Your task to perform on an android device: turn off picture-in-picture Image 0: 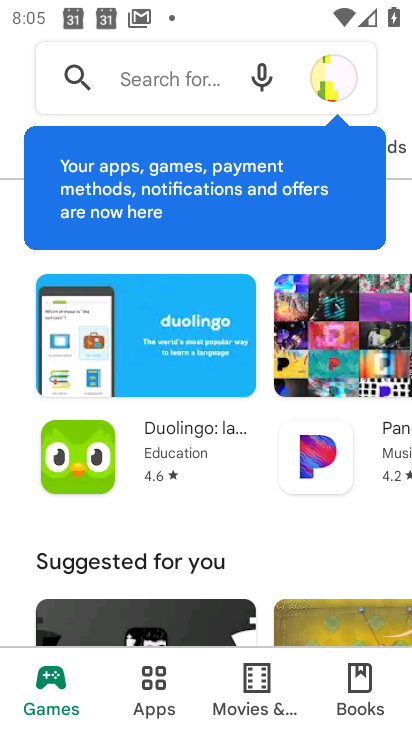
Step 0: press home button
Your task to perform on an android device: turn off picture-in-picture Image 1: 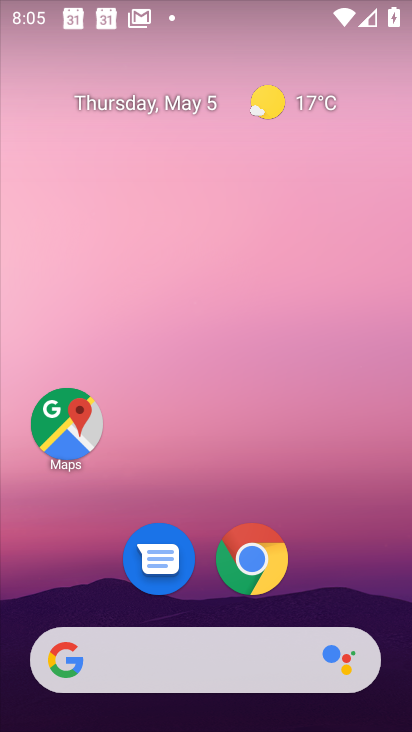
Step 1: click (249, 564)
Your task to perform on an android device: turn off picture-in-picture Image 2: 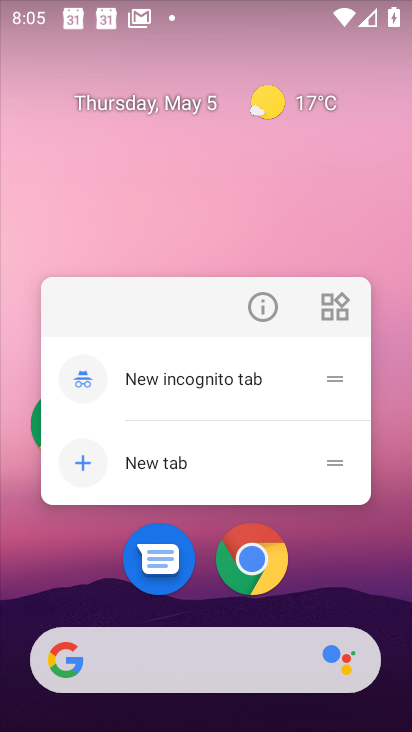
Step 2: click (272, 309)
Your task to perform on an android device: turn off picture-in-picture Image 3: 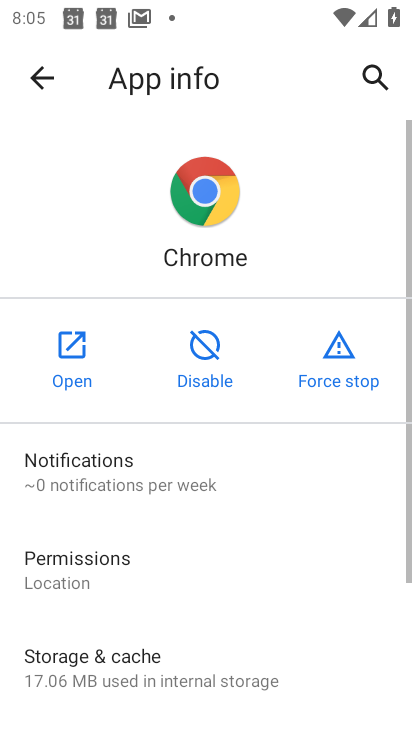
Step 3: drag from (242, 555) to (258, 126)
Your task to perform on an android device: turn off picture-in-picture Image 4: 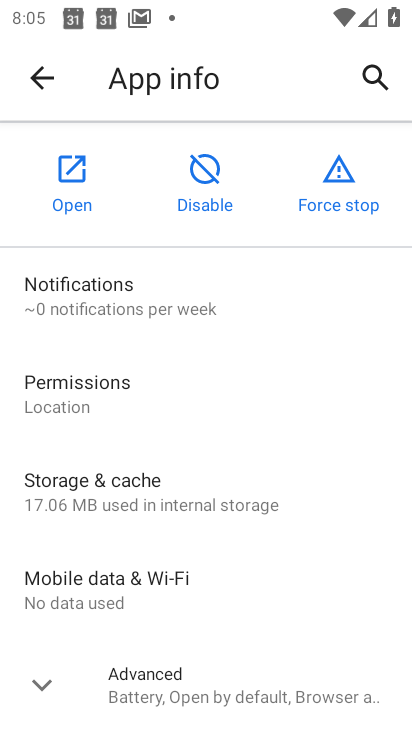
Step 4: click (42, 687)
Your task to perform on an android device: turn off picture-in-picture Image 5: 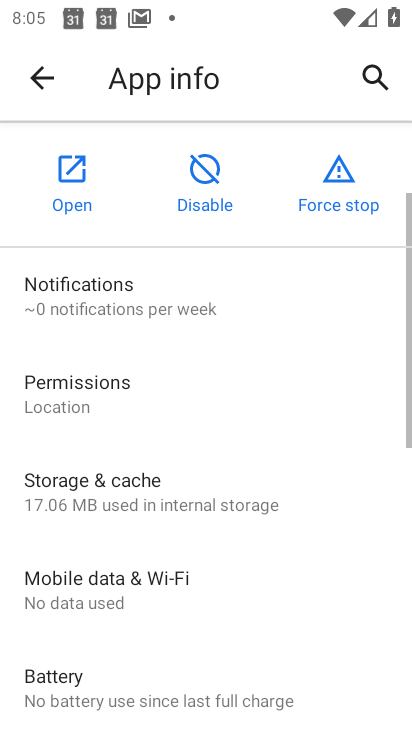
Step 5: drag from (191, 654) to (222, 203)
Your task to perform on an android device: turn off picture-in-picture Image 6: 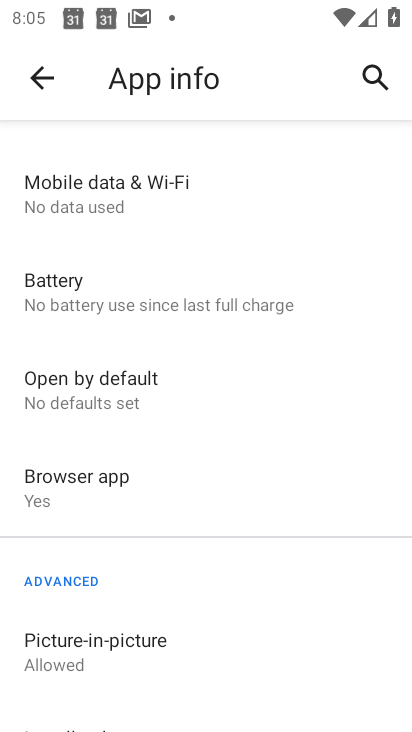
Step 6: drag from (161, 572) to (188, 295)
Your task to perform on an android device: turn off picture-in-picture Image 7: 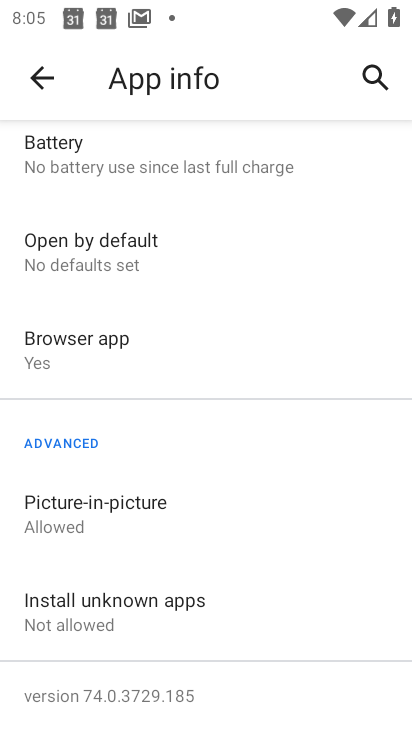
Step 7: click (64, 500)
Your task to perform on an android device: turn off picture-in-picture Image 8: 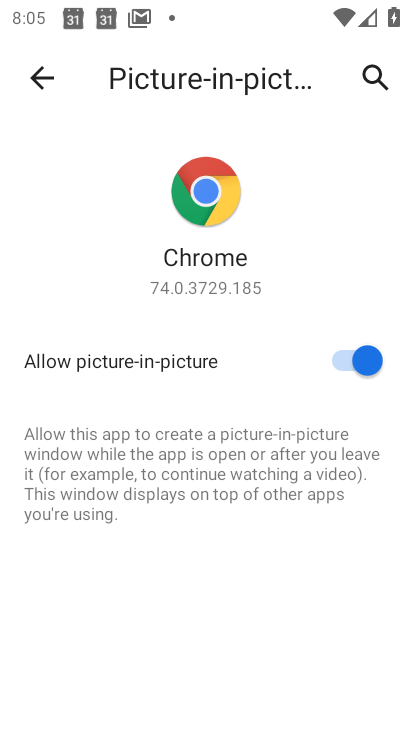
Step 8: click (363, 363)
Your task to perform on an android device: turn off picture-in-picture Image 9: 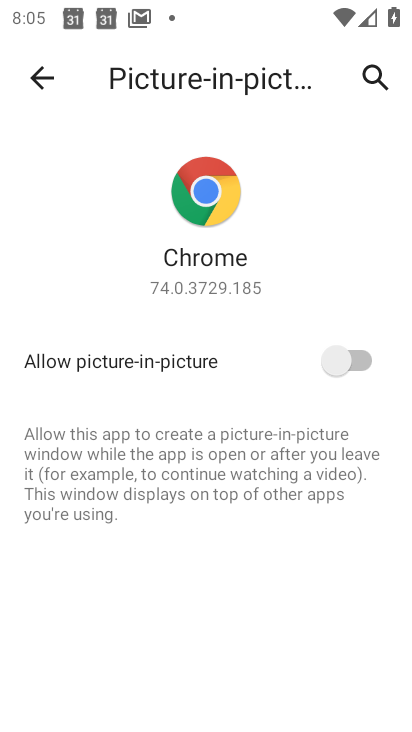
Step 9: task complete